Your task to perform on an android device: check battery use Image 0: 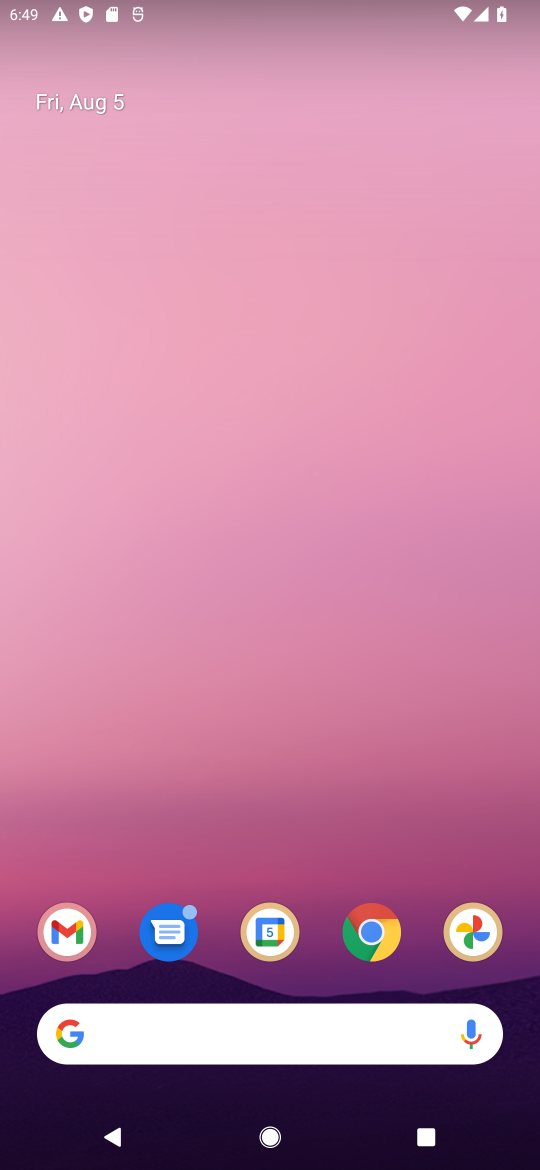
Step 0: drag from (185, 1044) to (369, 197)
Your task to perform on an android device: check battery use Image 1: 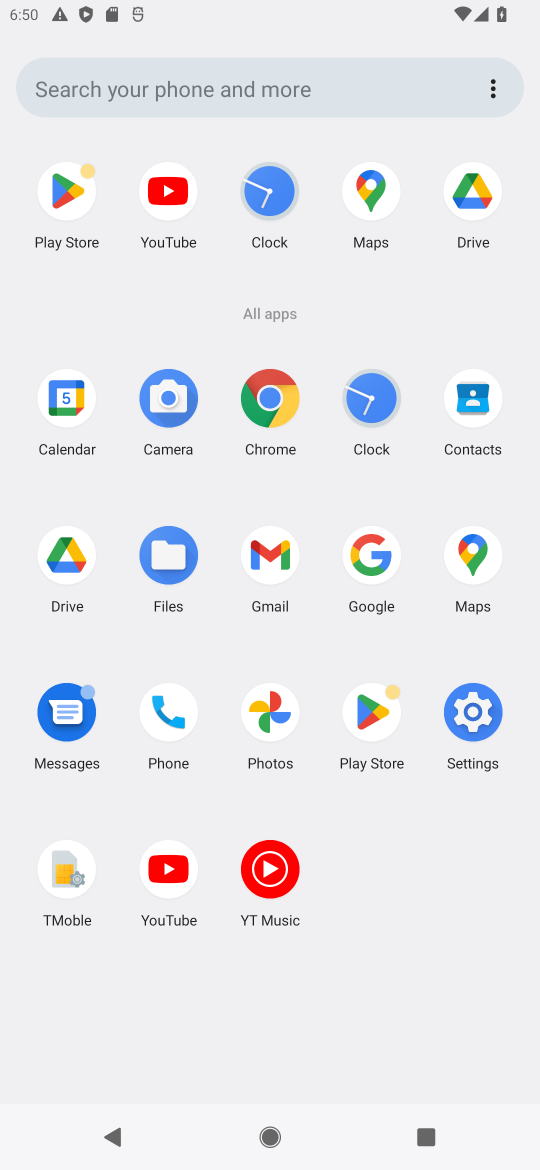
Step 1: click (474, 708)
Your task to perform on an android device: check battery use Image 2: 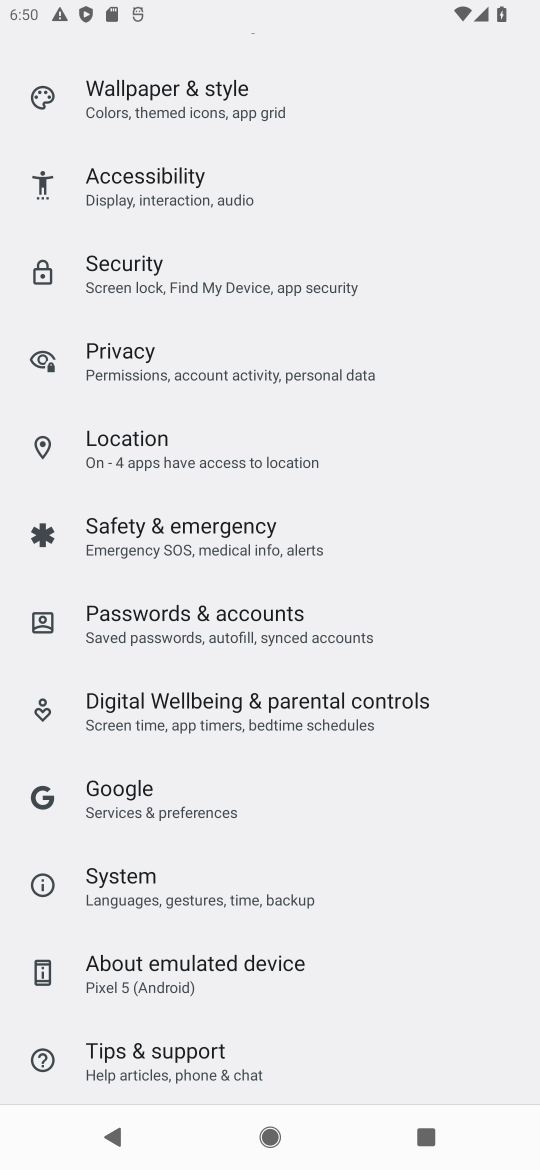
Step 2: drag from (287, 361) to (352, 775)
Your task to perform on an android device: check battery use Image 3: 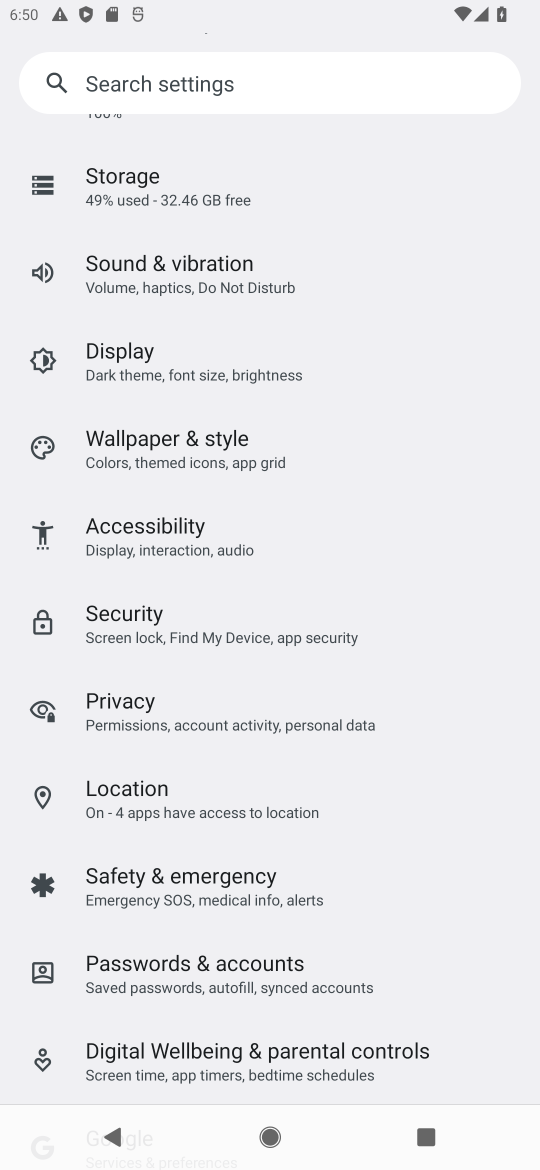
Step 3: drag from (246, 345) to (261, 658)
Your task to perform on an android device: check battery use Image 4: 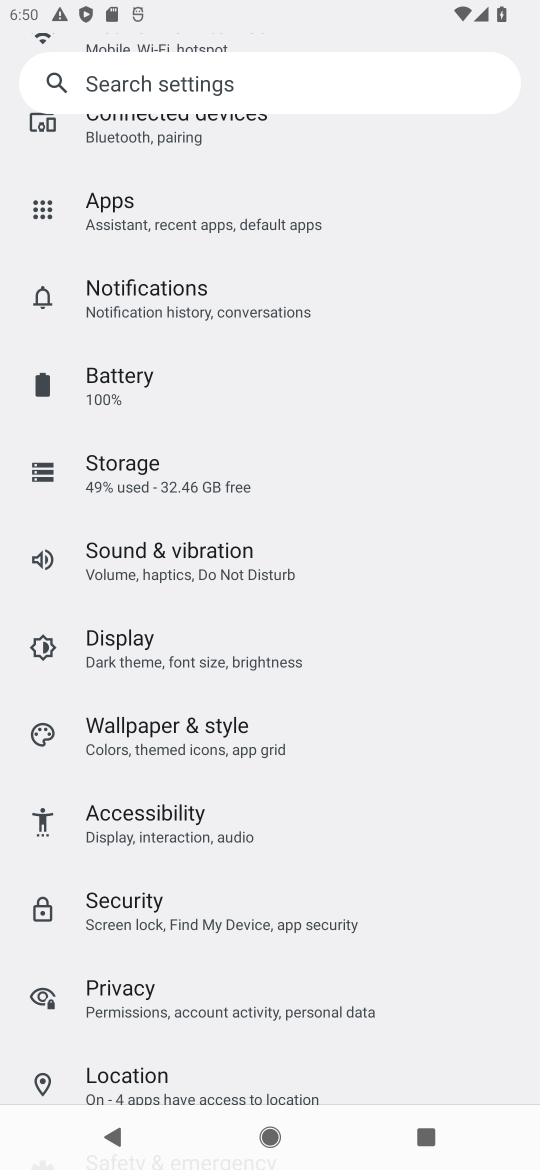
Step 4: click (134, 390)
Your task to perform on an android device: check battery use Image 5: 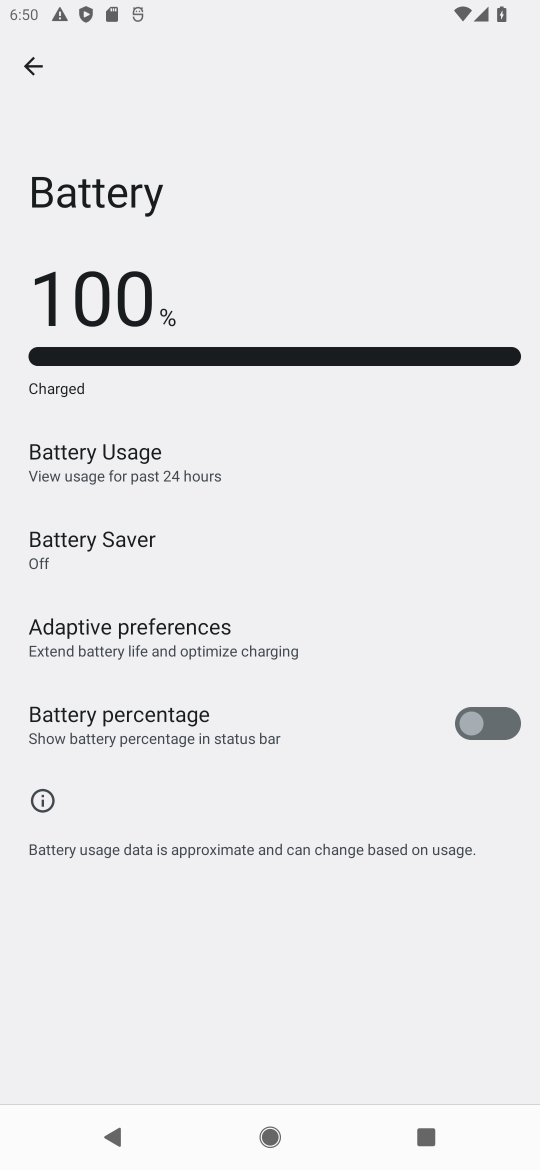
Step 5: click (132, 476)
Your task to perform on an android device: check battery use Image 6: 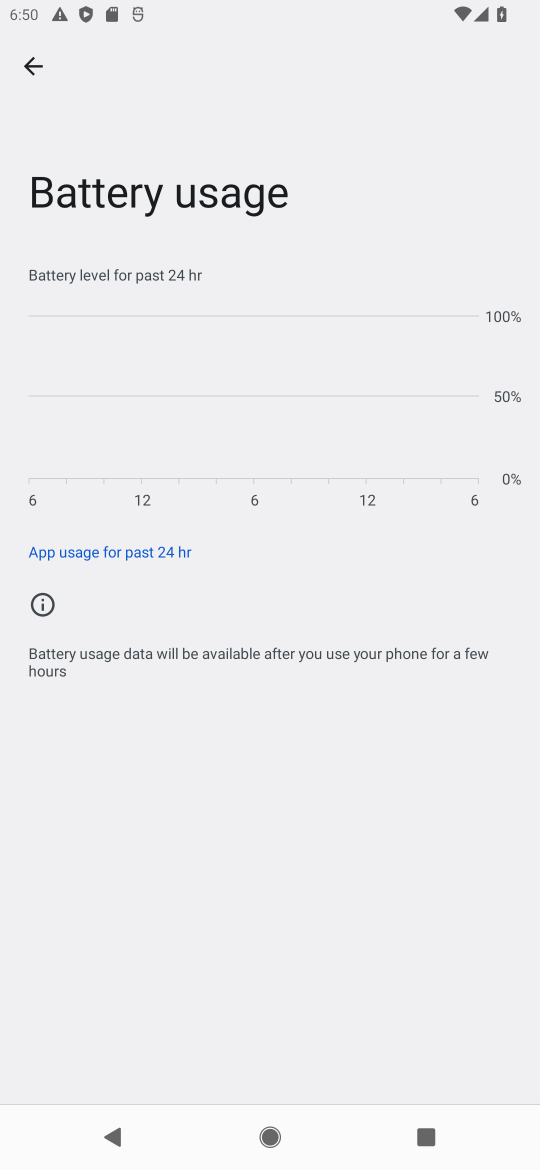
Step 6: task complete